Your task to perform on an android device: Go to Google Image 0: 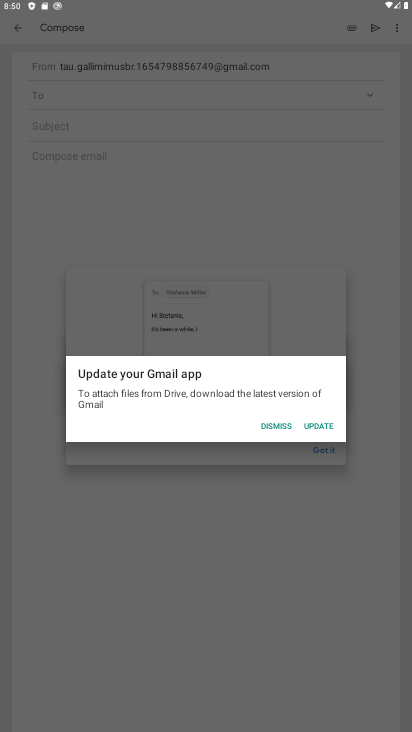
Step 0: press home button
Your task to perform on an android device: Go to Google Image 1: 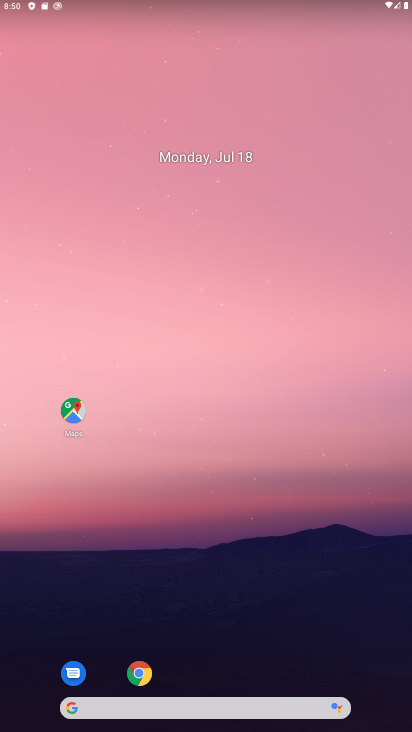
Step 1: drag from (149, 682) to (264, 116)
Your task to perform on an android device: Go to Google Image 2: 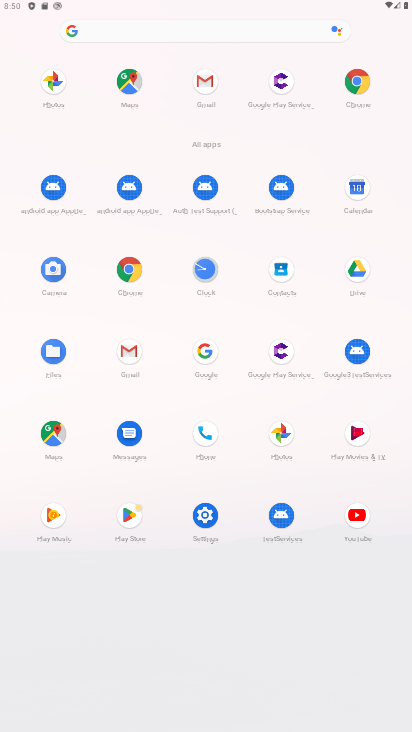
Step 2: click (205, 351)
Your task to perform on an android device: Go to Google Image 3: 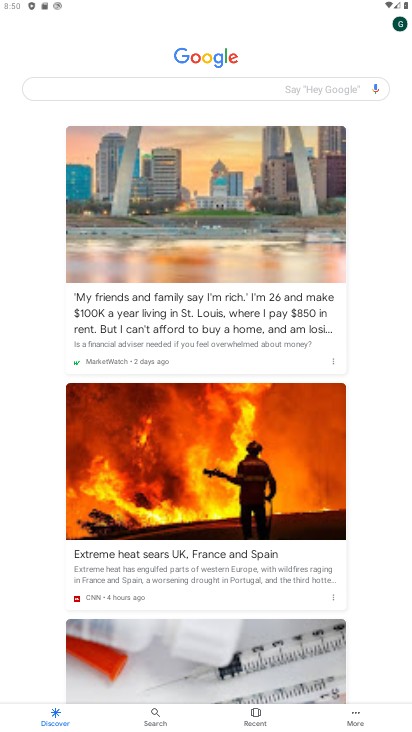
Step 3: task complete